Your task to perform on an android device: Go to Google Image 0: 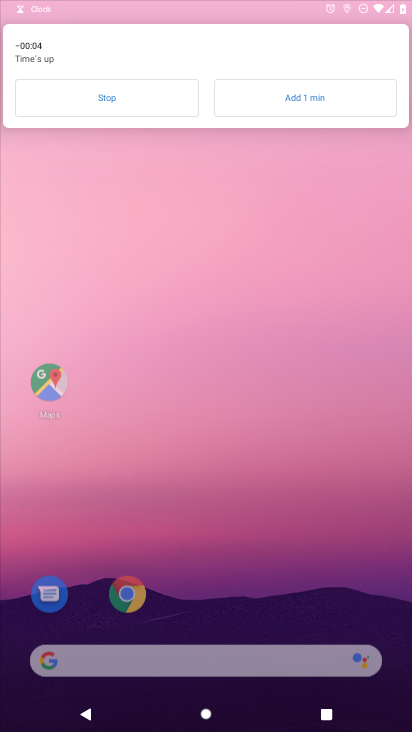
Step 0: click (130, 100)
Your task to perform on an android device: Go to Google Image 1: 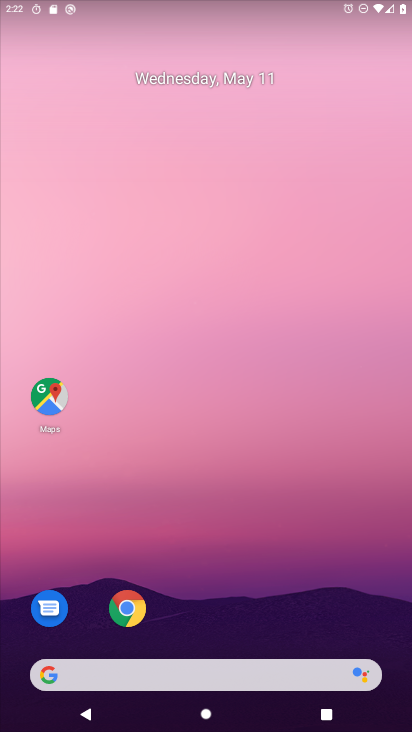
Step 1: drag from (280, 595) to (326, 101)
Your task to perform on an android device: Go to Google Image 2: 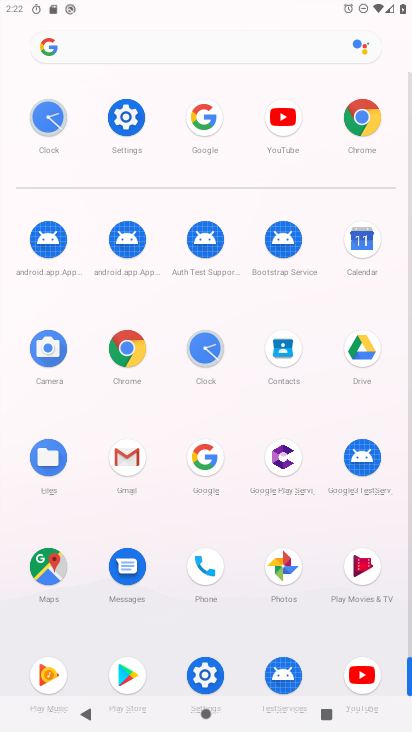
Step 2: click (211, 468)
Your task to perform on an android device: Go to Google Image 3: 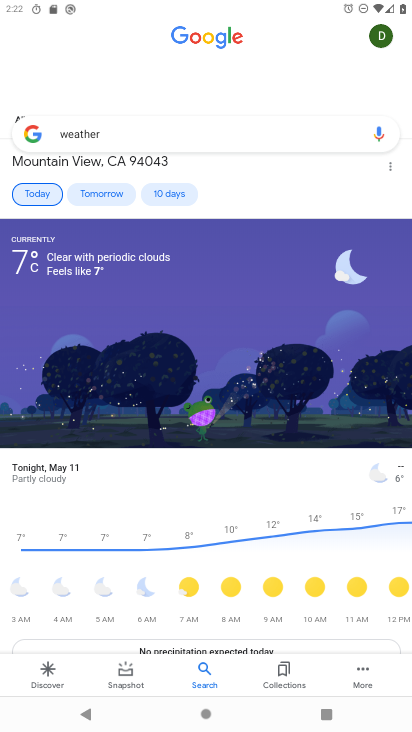
Step 3: task complete